Your task to perform on an android device: Search for vegetarian restaurants on Maps Image 0: 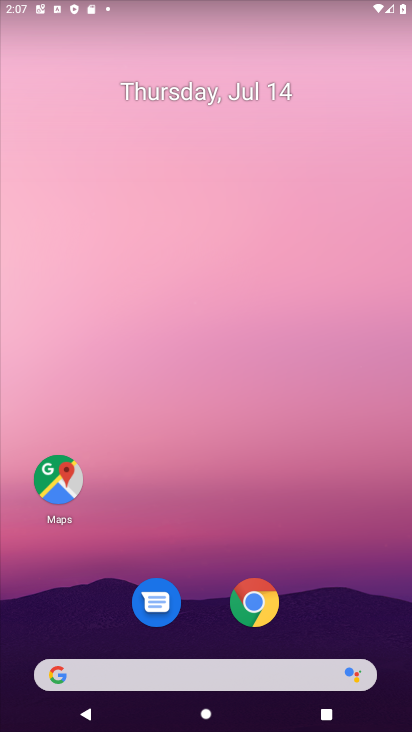
Step 0: click (59, 477)
Your task to perform on an android device: Search for vegetarian restaurants on Maps Image 1: 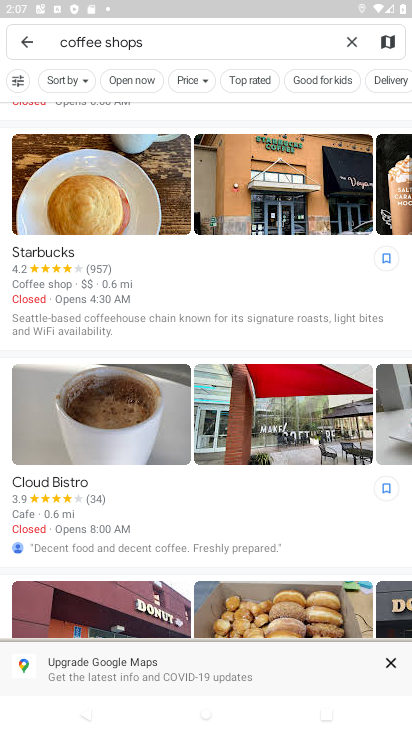
Step 1: click (349, 39)
Your task to perform on an android device: Search for vegetarian restaurants on Maps Image 2: 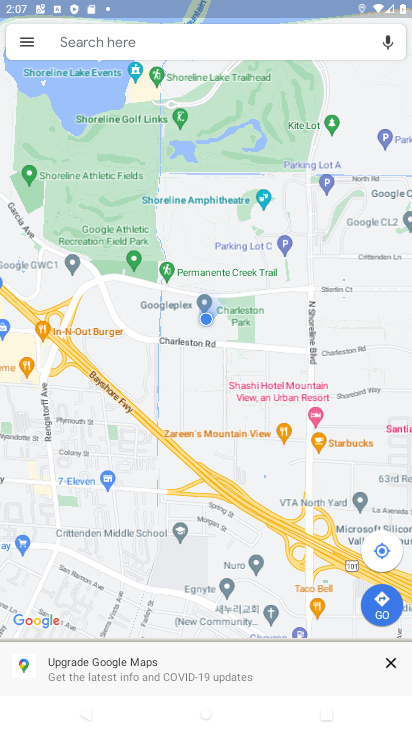
Step 2: click (77, 37)
Your task to perform on an android device: Search for vegetarian restaurants on Maps Image 3: 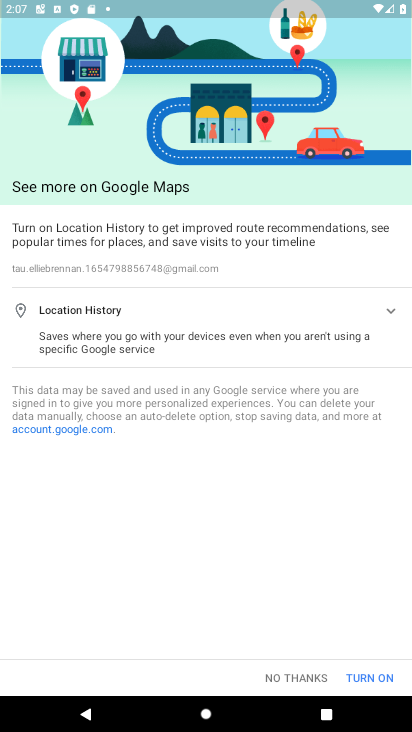
Step 3: click (301, 681)
Your task to perform on an android device: Search for vegetarian restaurants on Maps Image 4: 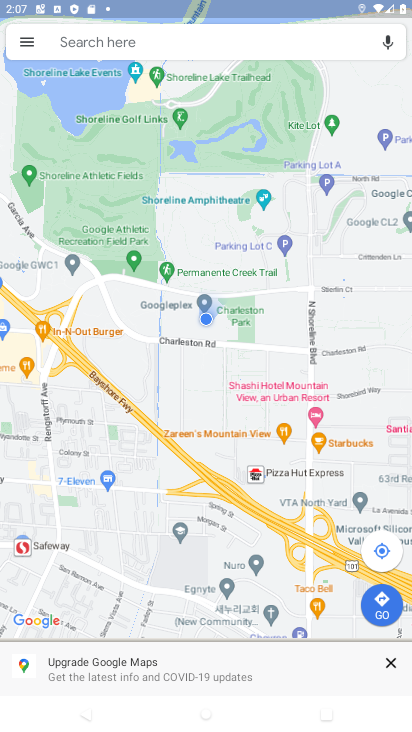
Step 4: click (91, 40)
Your task to perform on an android device: Search for vegetarian restaurants on Maps Image 5: 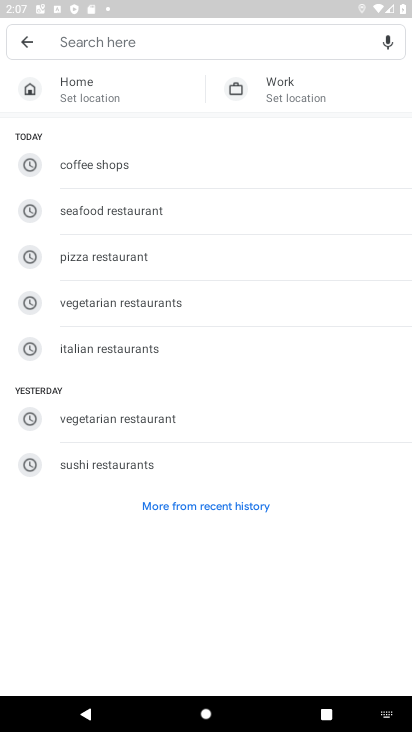
Step 5: type "vegetarian restaurants"
Your task to perform on an android device: Search for vegetarian restaurants on Maps Image 6: 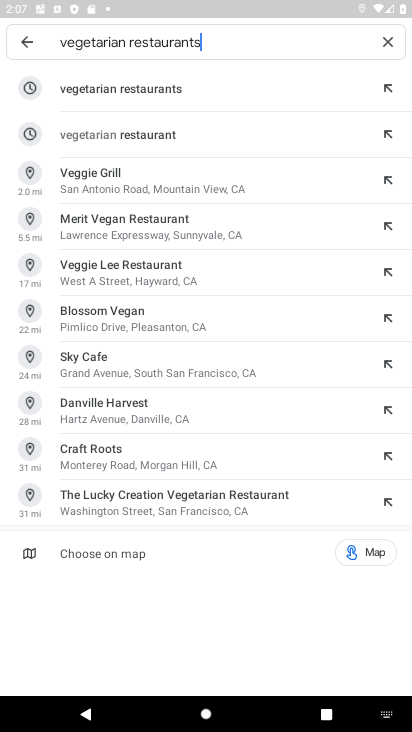
Step 6: click (91, 91)
Your task to perform on an android device: Search for vegetarian restaurants on Maps Image 7: 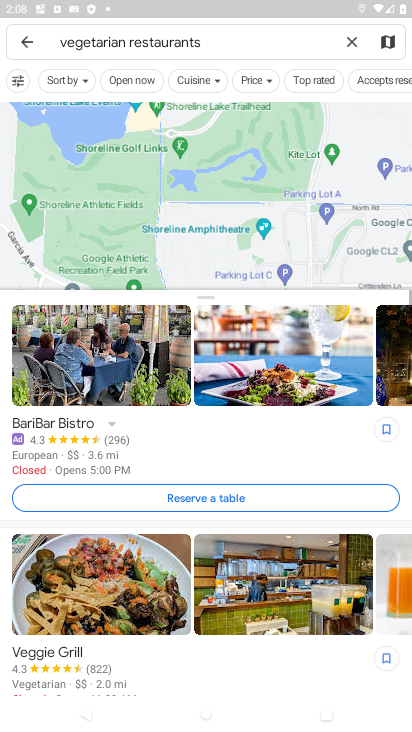
Step 7: click (222, 216)
Your task to perform on an android device: Search for vegetarian restaurants on Maps Image 8: 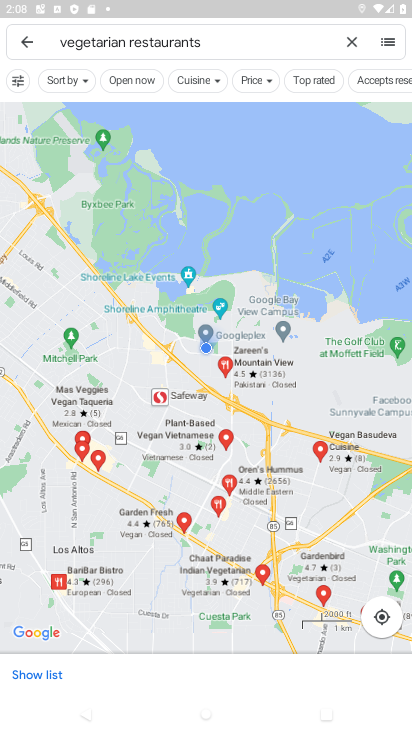
Step 8: click (48, 673)
Your task to perform on an android device: Search for vegetarian restaurants on Maps Image 9: 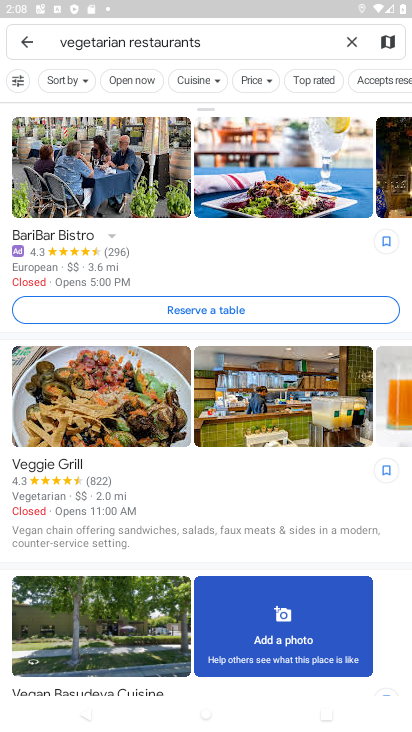
Step 9: task complete